Your task to perform on an android device: Open internet settings Image 0: 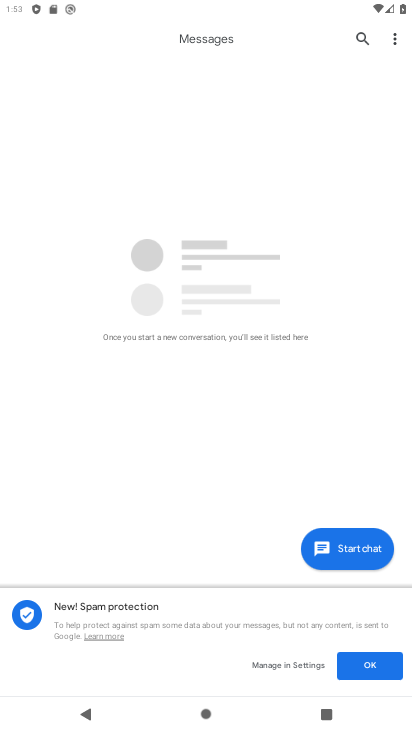
Step 0: press home button
Your task to perform on an android device: Open internet settings Image 1: 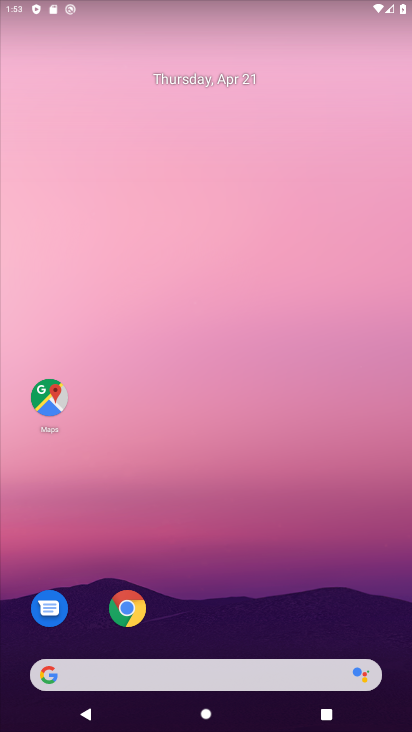
Step 1: drag from (207, 555) to (210, 155)
Your task to perform on an android device: Open internet settings Image 2: 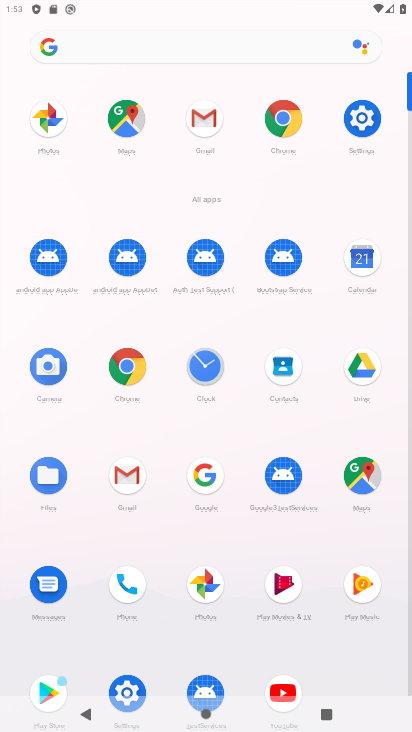
Step 2: click (345, 118)
Your task to perform on an android device: Open internet settings Image 3: 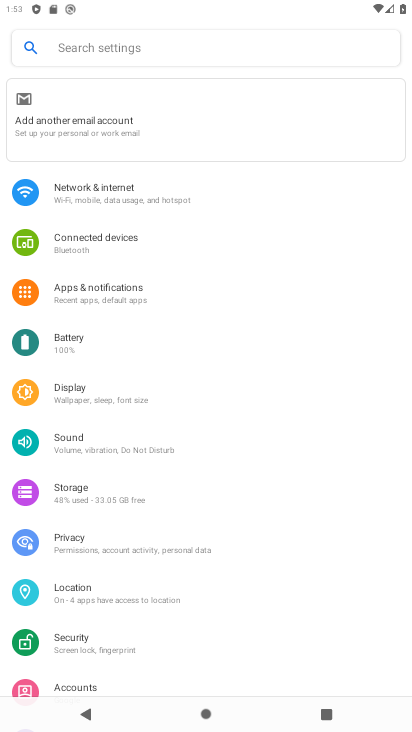
Step 3: click (125, 181)
Your task to perform on an android device: Open internet settings Image 4: 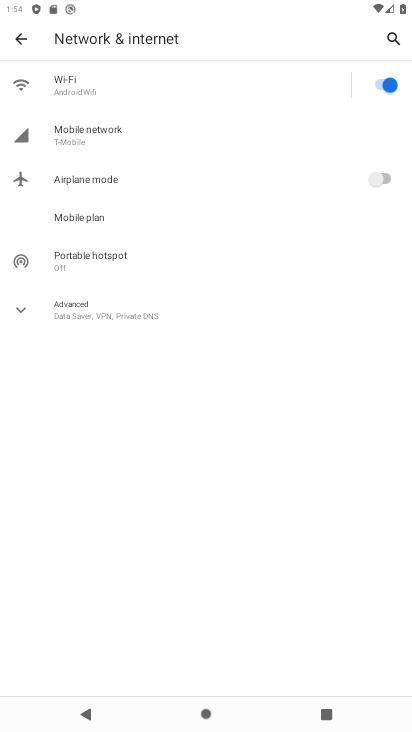
Step 4: task complete